Your task to perform on an android device: set default search engine in the chrome app Image 0: 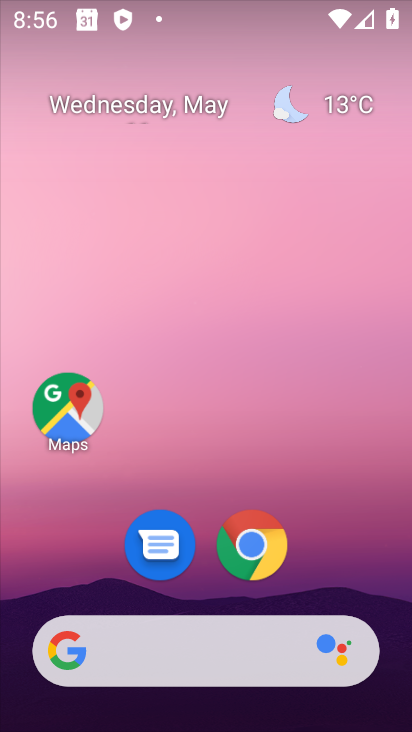
Step 0: drag from (310, 557) to (193, 4)
Your task to perform on an android device: set default search engine in the chrome app Image 1: 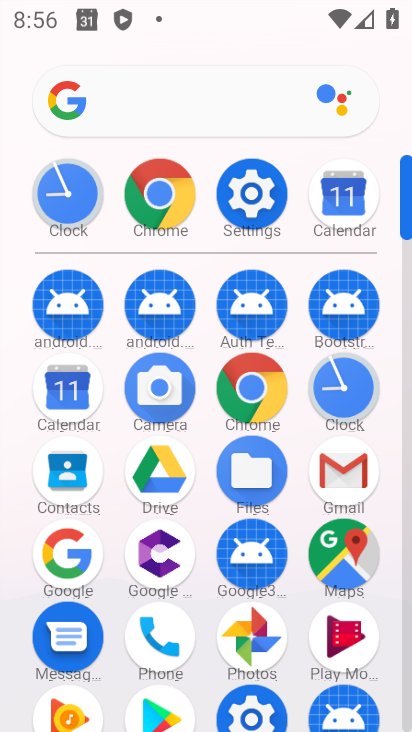
Step 1: drag from (13, 612) to (14, 313)
Your task to perform on an android device: set default search engine in the chrome app Image 2: 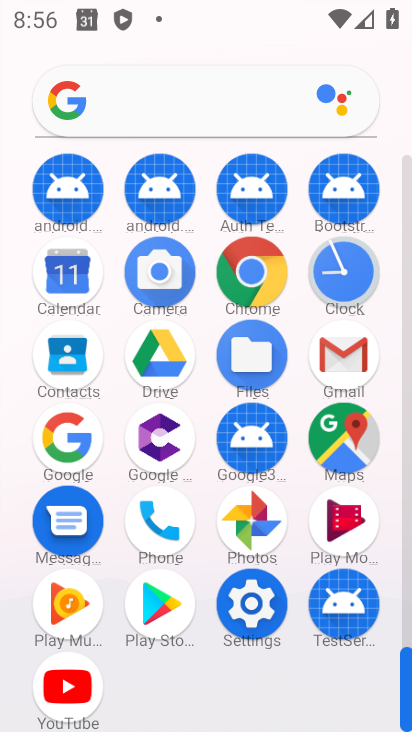
Step 2: click (254, 264)
Your task to perform on an android device: set default search engine in the chrome app Image 3: 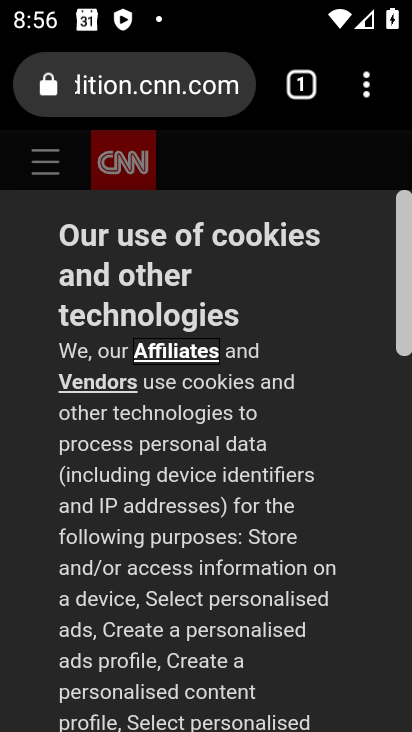
Step 3: drag from (365, 89) to (128, 596)
Your task to perform on an android device: set default search engine in the chrome app Image 4: 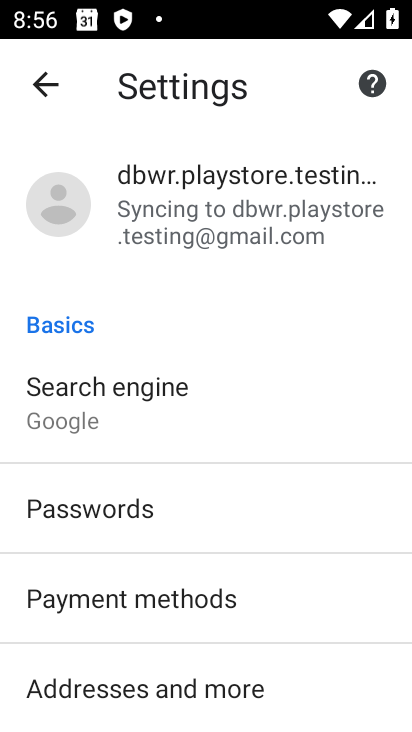
Step 4: drag from (225, 624) to (234, 302)
Your task to perform on an android device: set default search engine in the chrome app Image 5: 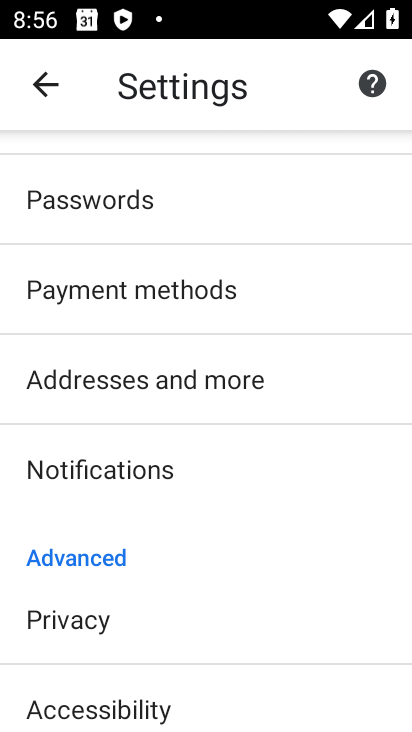
Step 5: drag from (267, 466) to (310, 249)
Your task to perform on an android device: set default search engine in the chrome app Image 6: 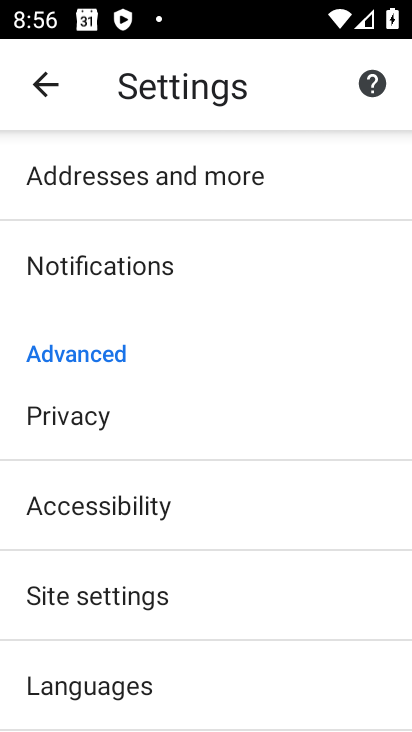
Step 6: click (185, 606)
Your task to perform on an android device: set default search engine in the chrome app Image 7: 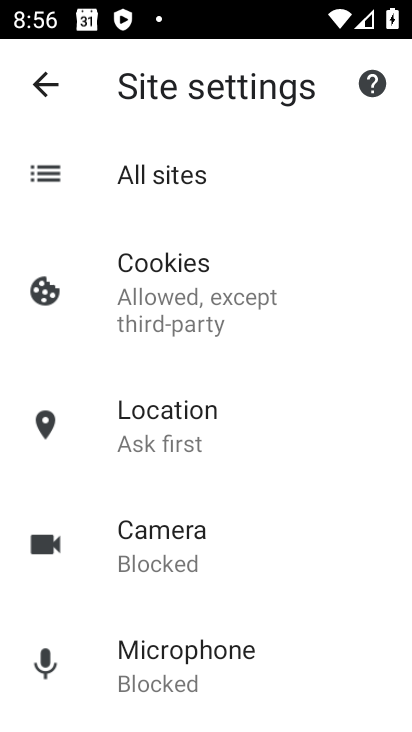
Step 7: drag from (286, 620) to (262, 214)
Your task to perform on an android device: set default search engine in the chrome app Image 8: 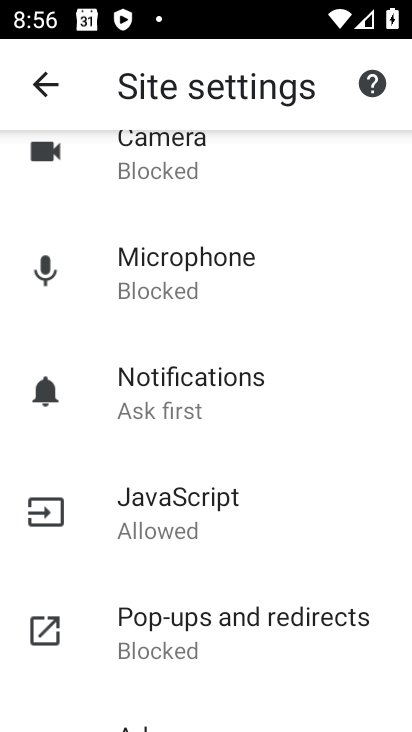
Step 8: drag from (276, 562) to (278, 182)
Your task to perform on an android device: set default search engine in the chrome app Image 9: 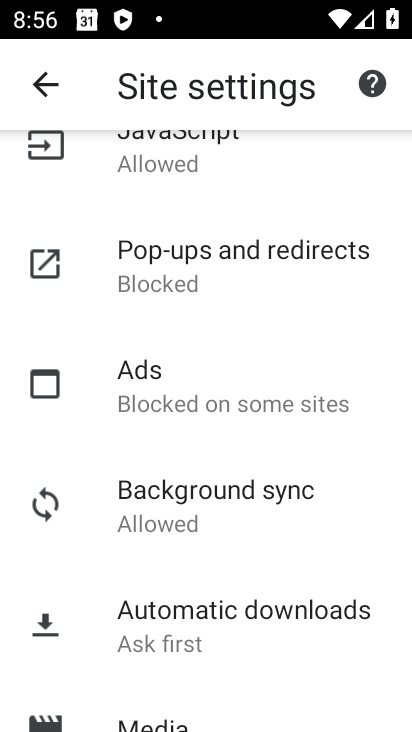
Step 9: drag from (229, 598) to (232, 266)
Your task to perform on an android device: set default search engine in the chrome app Image 10: 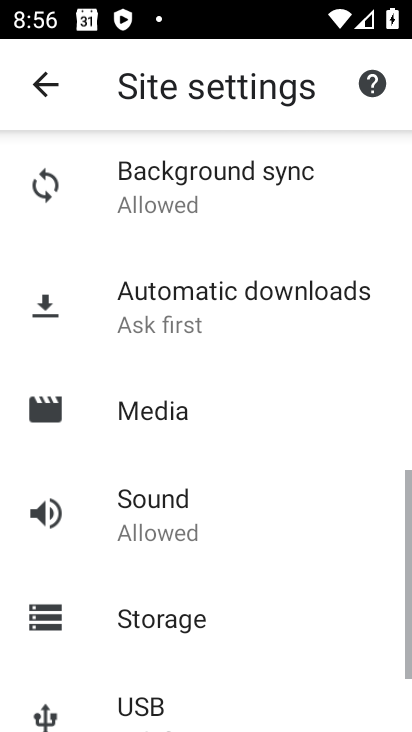
Step 10: drag from (261, 256) to (245, 724)
Your task to perform on an android device: set default search engine in the chrome app Image 11: 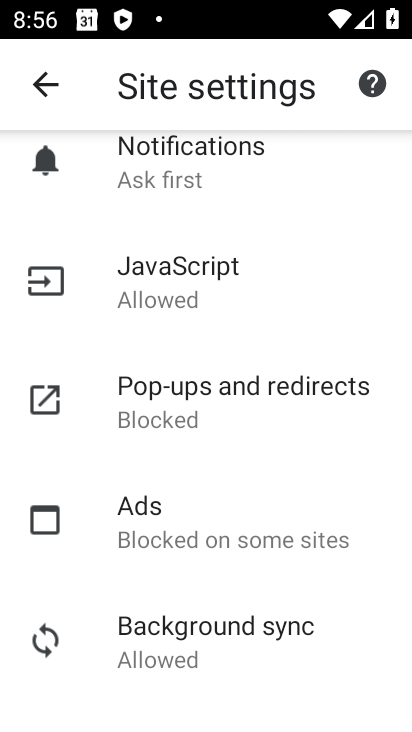
Step 11: click (40, 85)
Your task to perform on an android device: set default search engine in the chrome app Image 12: 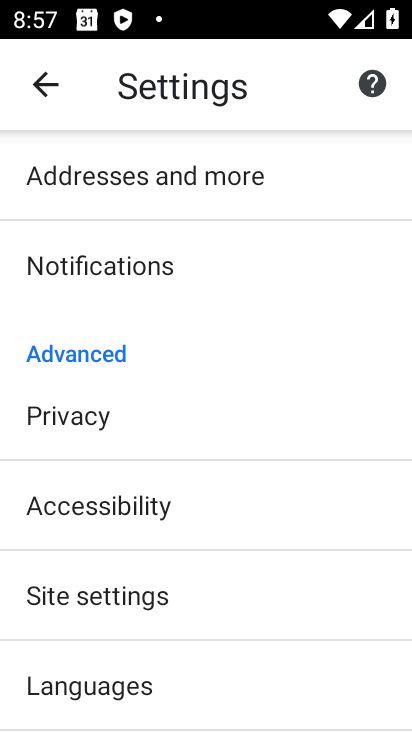
Step 12: drag from (183, 281) to (241, 637)
Your task to perform on an android device: set default search engine in the chrome app Image 13: 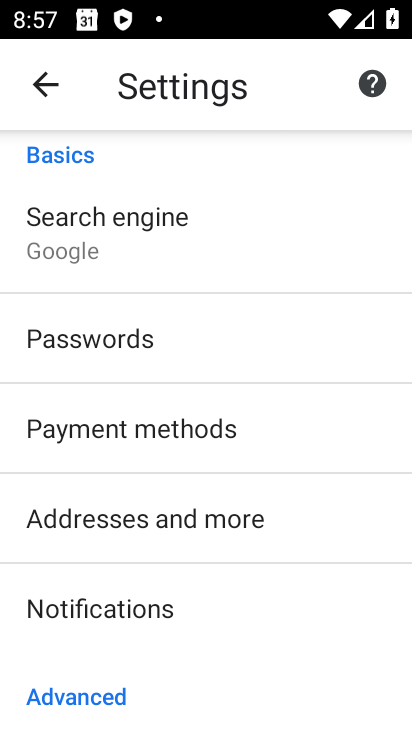
Step 13: click (194, 247)
Your task to perform on an android device: set default search engine in the chrome app Image 14: 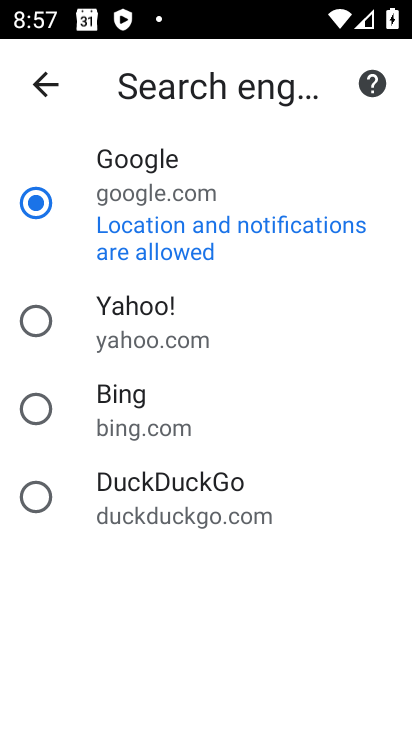
Step 14: click (161, 316)
Your task to perform on an android device: set default search engine in the chrome app Image 15: 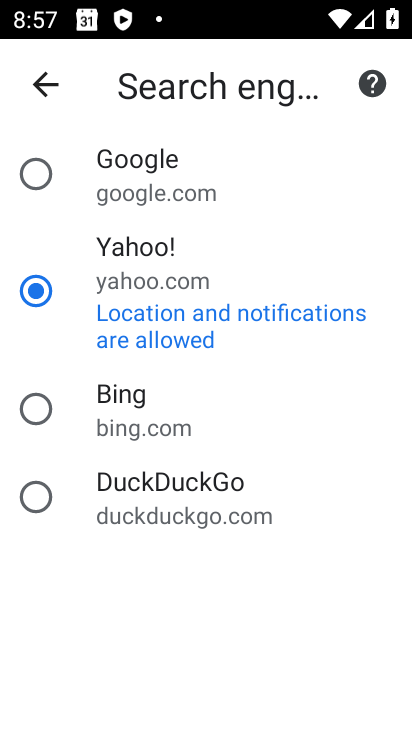
Step 15: task complete